Your task to perform on an android device: Go to location settings Image 0: 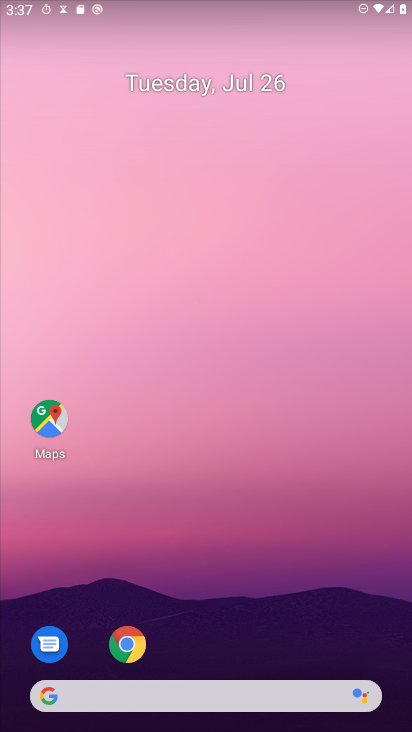
Step 0: press home button
Your task to perform on an android device: Go to location settings Image 1: 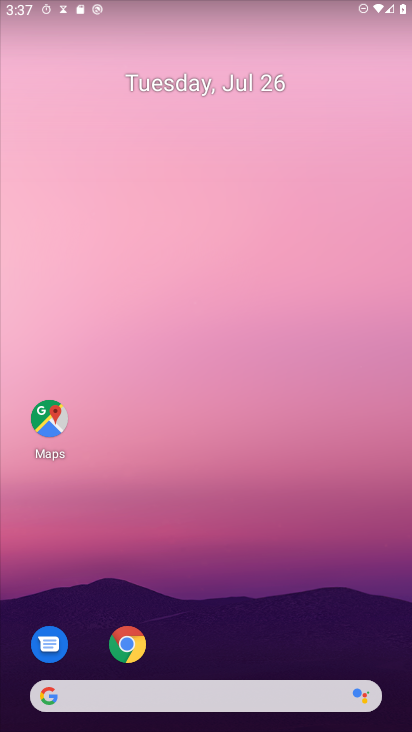
Step 1: drag from (253, 621) to (276, 44)
Your task to perform on an android device: Go to location settings Image 2: 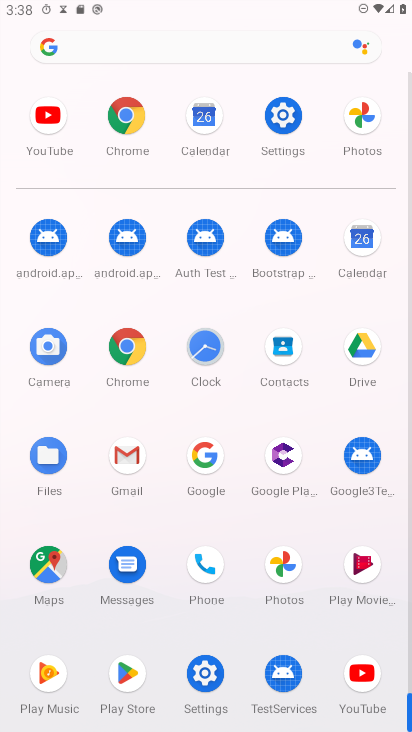
Step 2: click (278, 118)
Your task to perform on an android device: Go to location settings Image 3: 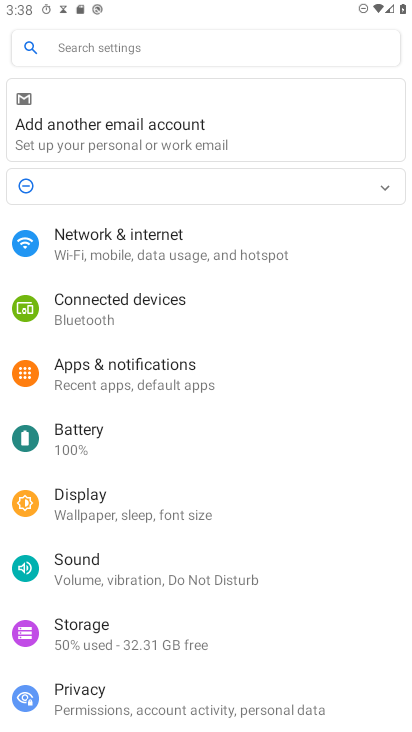
Step 3: drag from (147, 662) to (158, 296)
Your task to perform on an android device: Go to location settings Image 4: 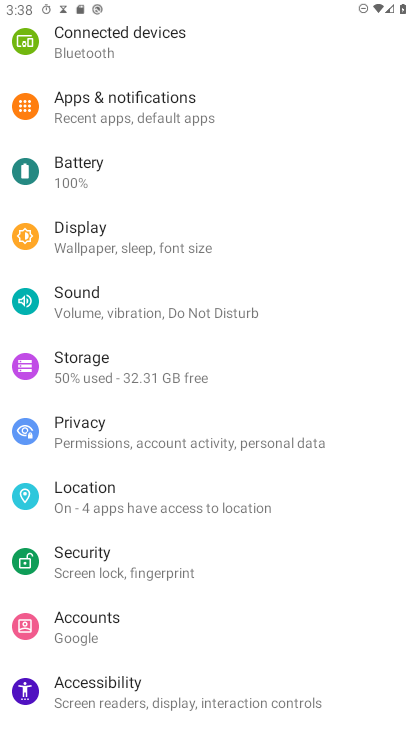
Step 4: click (106, 496)
Your task to perform on an android device: Go to location settings Image 5: 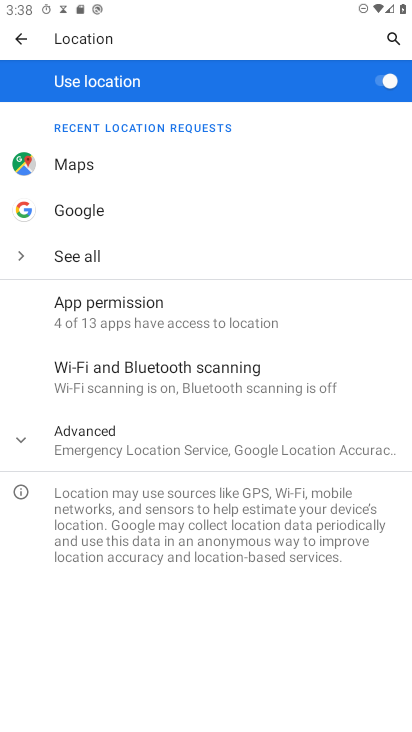
Step 5: task complete